Your task to perform on an android device: Go to battery settings Image 0: 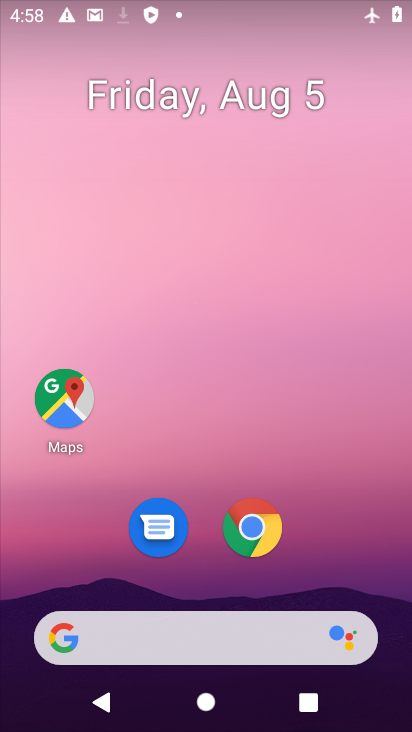
Step 0: click (270, 164)
Your task to perform on an android device: Go to battery settings Image 1: 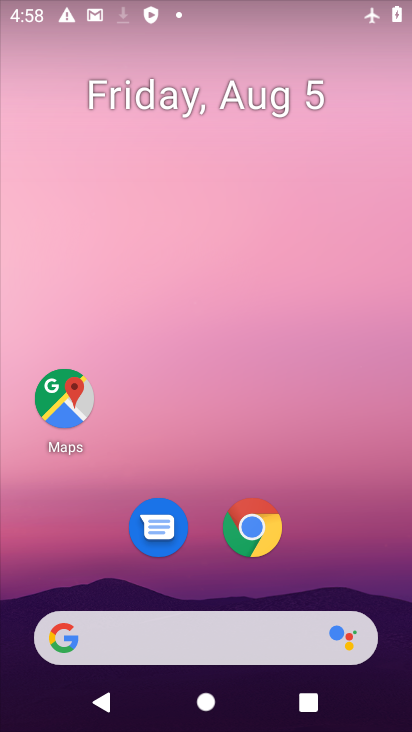
Step 1: drag from (218, 590) to (238, 181)
Your task to perform on an android device: Go to battery settings Image 2: 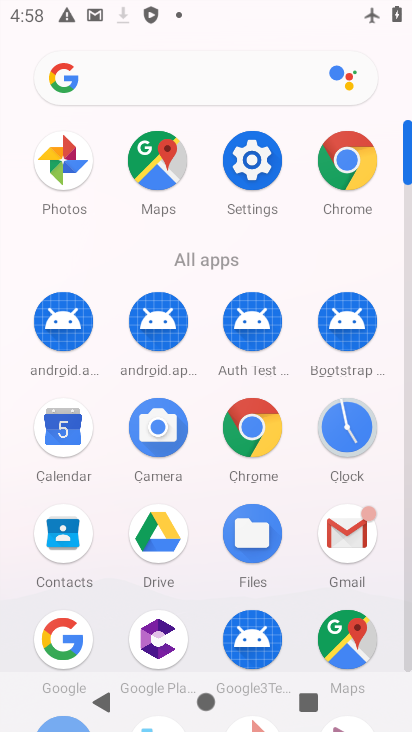
Step 2: click (251, 159)
Your task to perform on an android device: Go to battery settings Image 3: 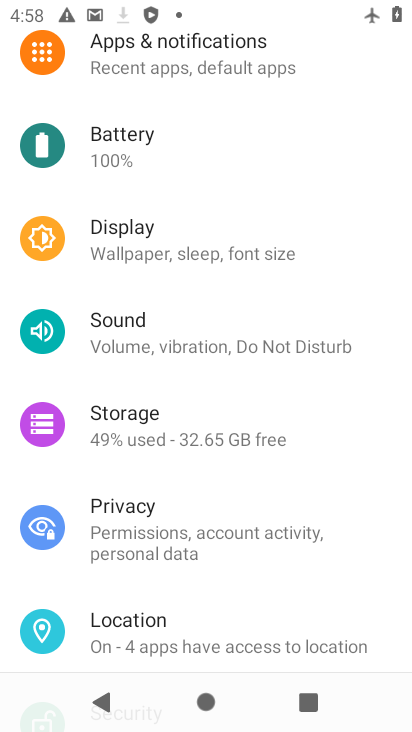
Step 3: click (145, 141)
Your task to perform on an android device: Go to battery settings Image 4: 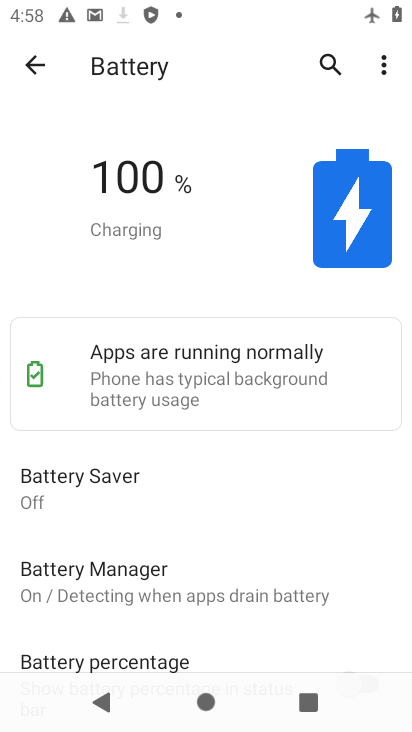
Step 4: task complete